Your task to perform on an android device: Check the weather Image 0: 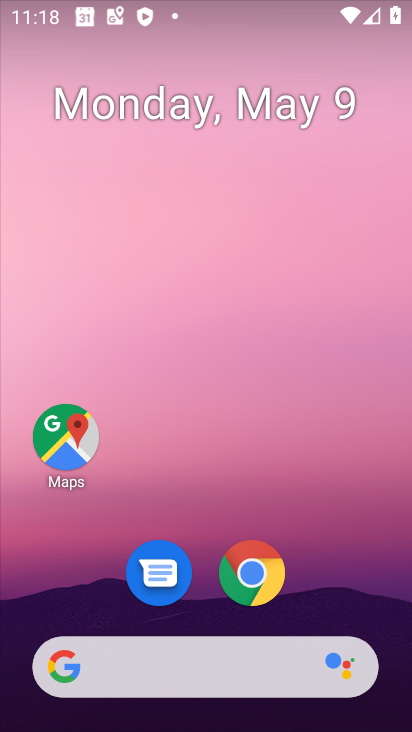
Step 0: drag from (208, 616) to (233, 287)
Your task to perform on an android device: Check the weather Image 1: 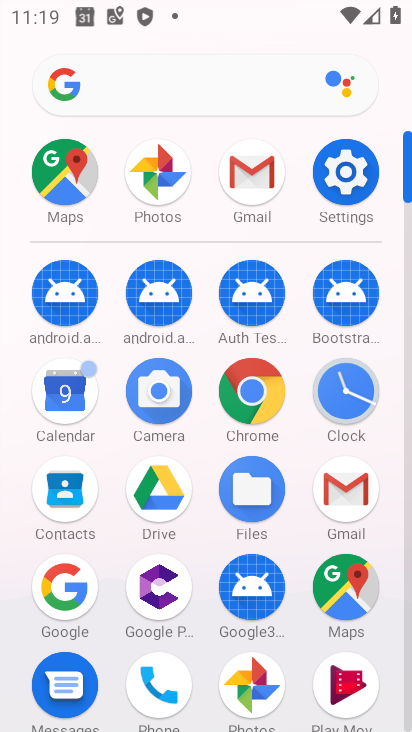
Step 1: click (251, 100)
Your task to perform on an android device: Check the weather Image 2: 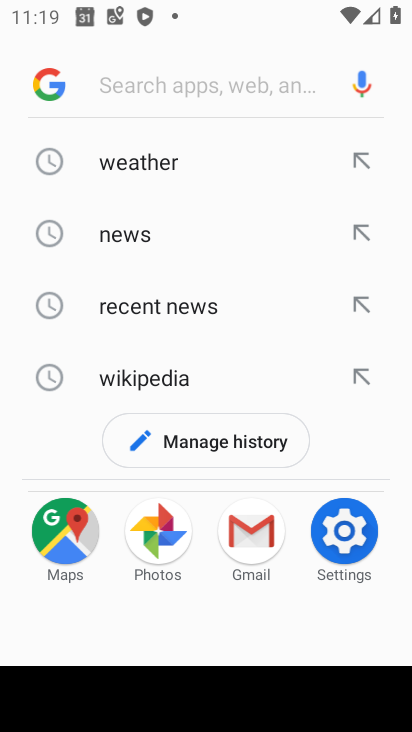
Step 2: click (152, 155)
Your task to perform on an android device: Check the weather Image 3: 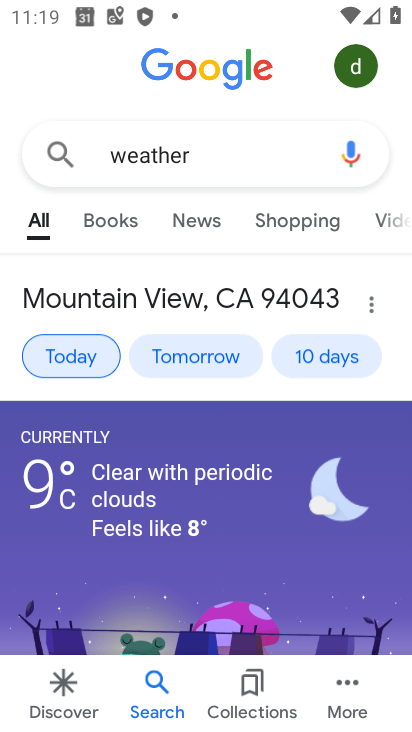
Step 3: task complete